Your task to perform on an android device: Open calendar and show me the first week of next month Image 0: 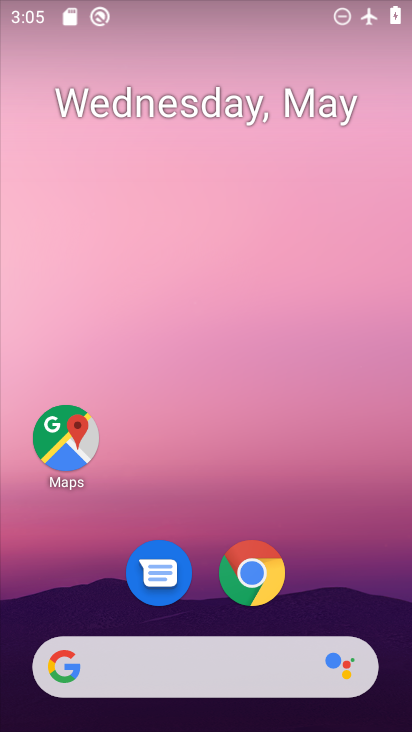
Step 0: drag from (332, 607) to (342, 37)
Your task to perform on an android device: Open calendar and show me the first week of next month Image 1: 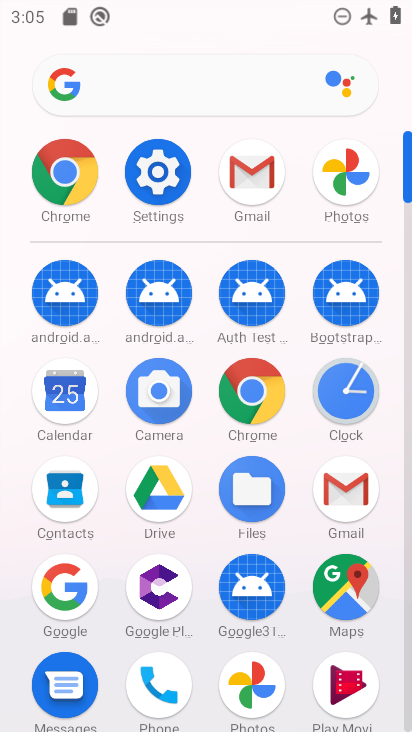
Step 1: click (58, 402)
Your task to perform on an android device: Open calendar and show me the first week of next month Image 2: 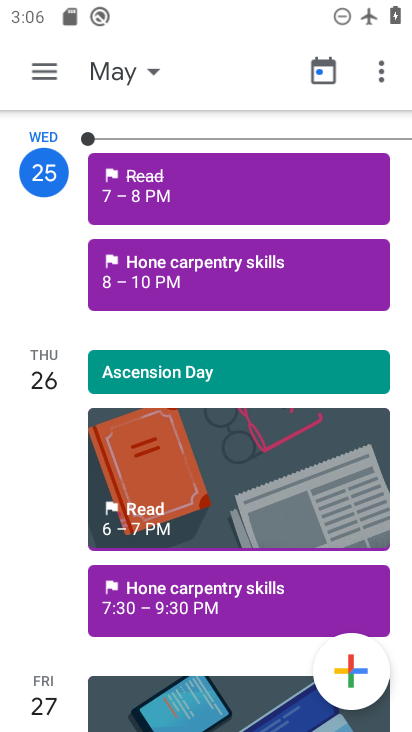
Step 2: click (149, 68)
Your task to perform on an android device: Open calendar and show me the first week of next month Image 3: 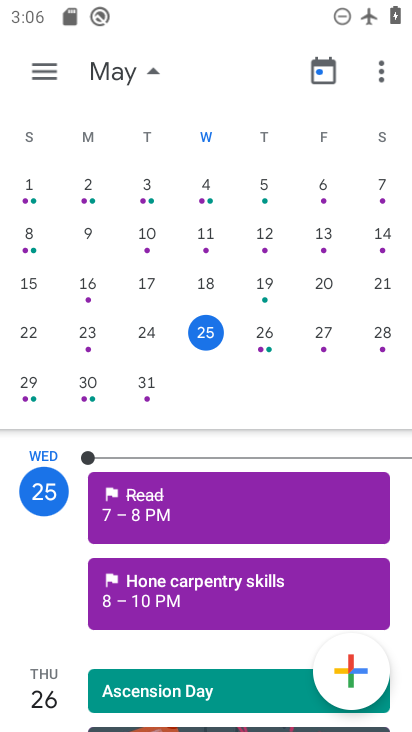
Step 3: drag from (403, 297) to (15, 280)
Your task to perform on an android device: Open calendar and show me the first week of next month Image 4: 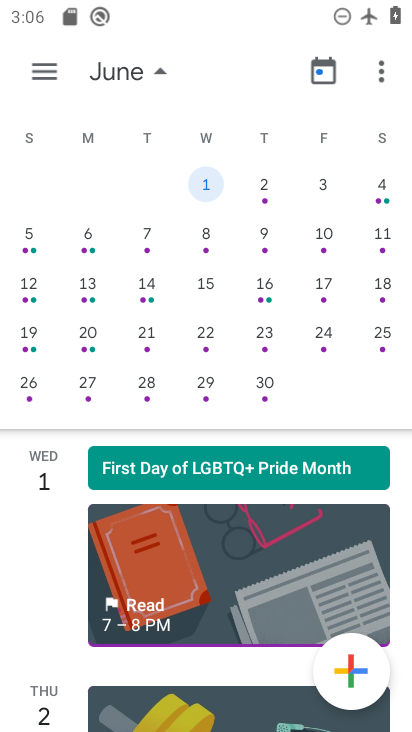
Step 4: click (210, 185)
Your task to perform on an android device: Open calendar and show me the first week of next month Image 5: 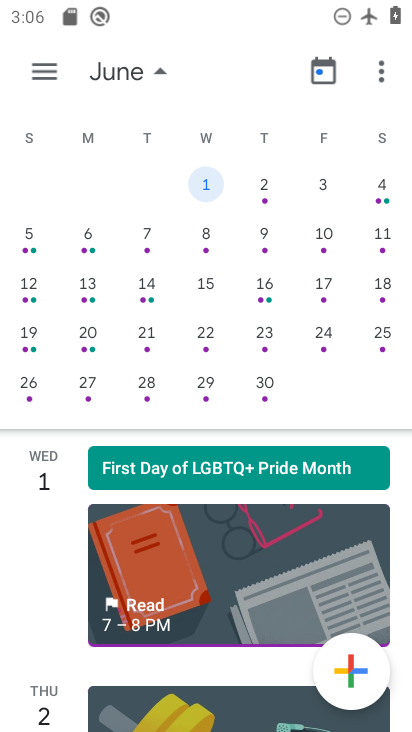
Step 5: click (211, 190)
Your task to perform on an android device: Open calendar and show me the first week of next month Image 6: 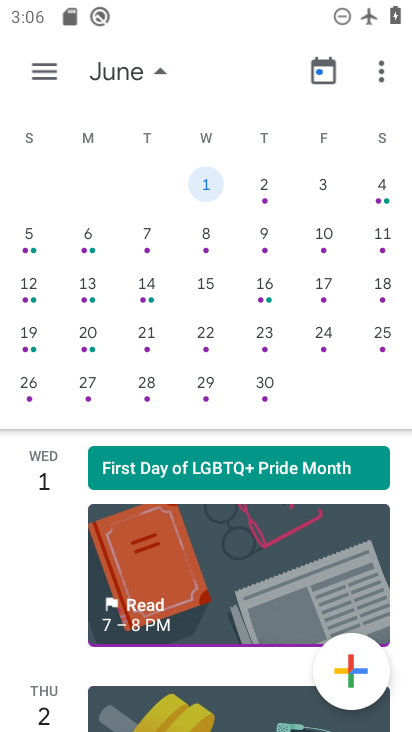
Step 6: task complete